Your task to perform on an android device: Go to privacy settings Image 0: 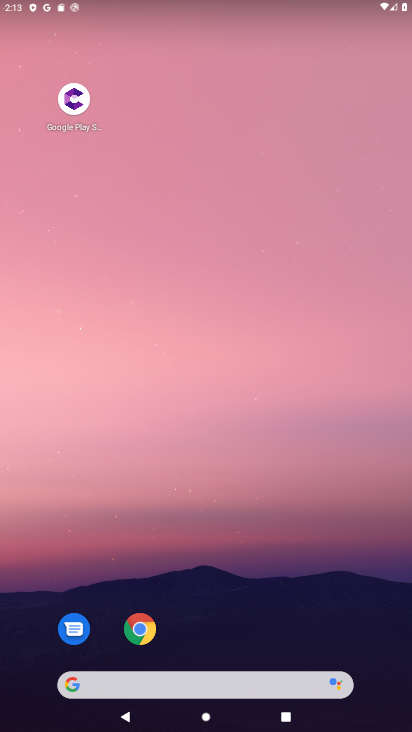
Step 0: drag from (265, 634) to (144, 82)
Your task to perform on an android device: Go to privacy settings Image 1: 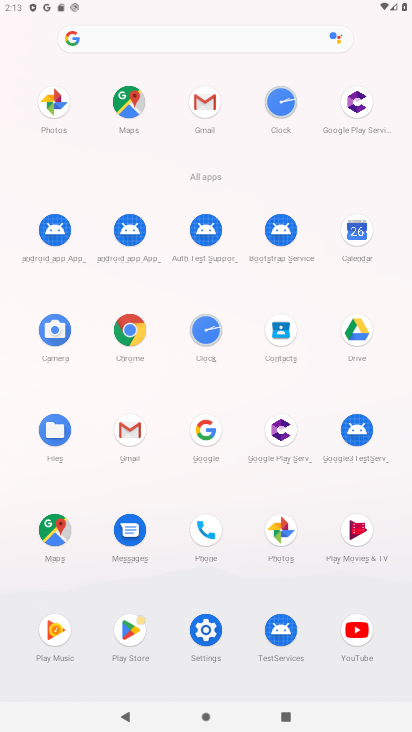
Step 1: click (209, 642)
Your task to perform on an android device: Go to privacy settings Image 2: 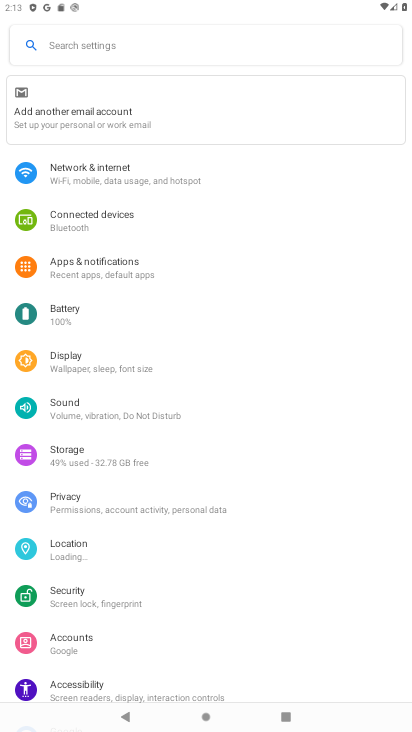
Step 2: click (188, 508)
Your task to perform on an android device: Go to privacy settings Image 3: 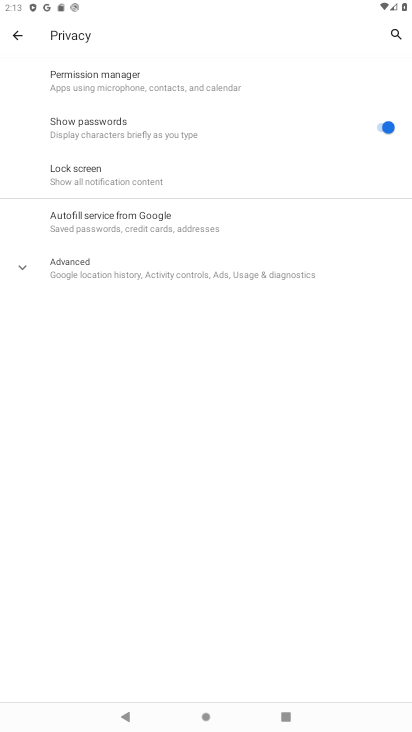
Step 3: task complete